Your task to perform on an android device: Search for hotels in Buenos aires Image 0: 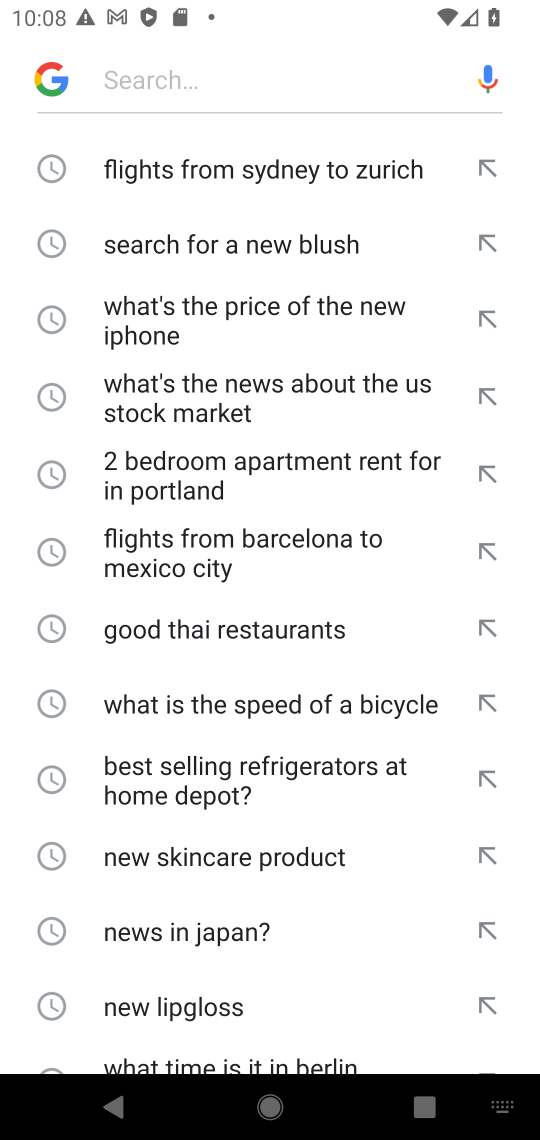
Step 0: press home button
Your task to perform on an android device: Search for hotels in Buenos aires Image 1: 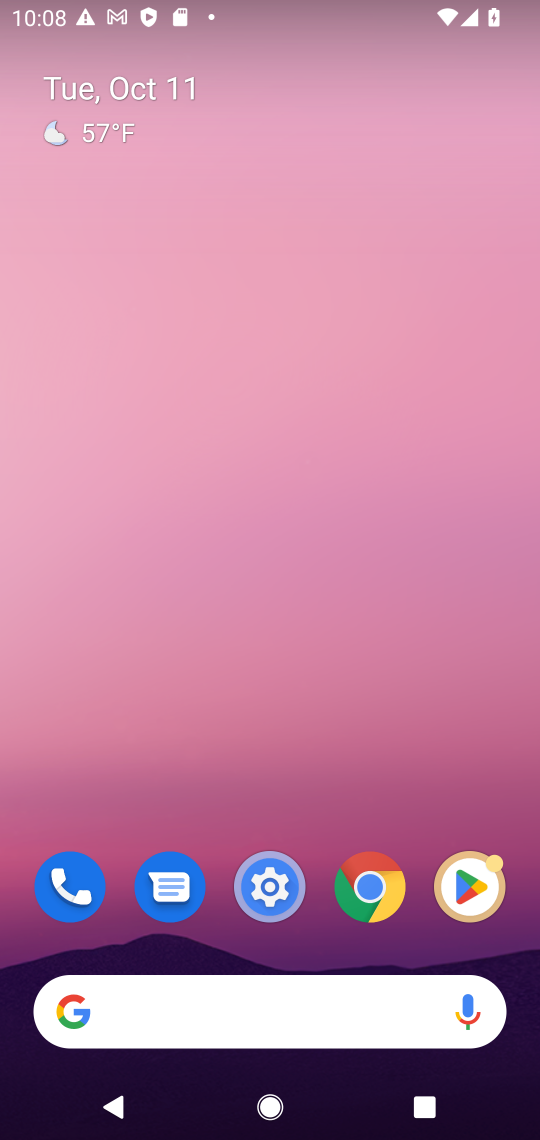
Step 1: click (147, 1012)
Your task to perform on an android device: Search for hotels in Buenos aires Image 2: 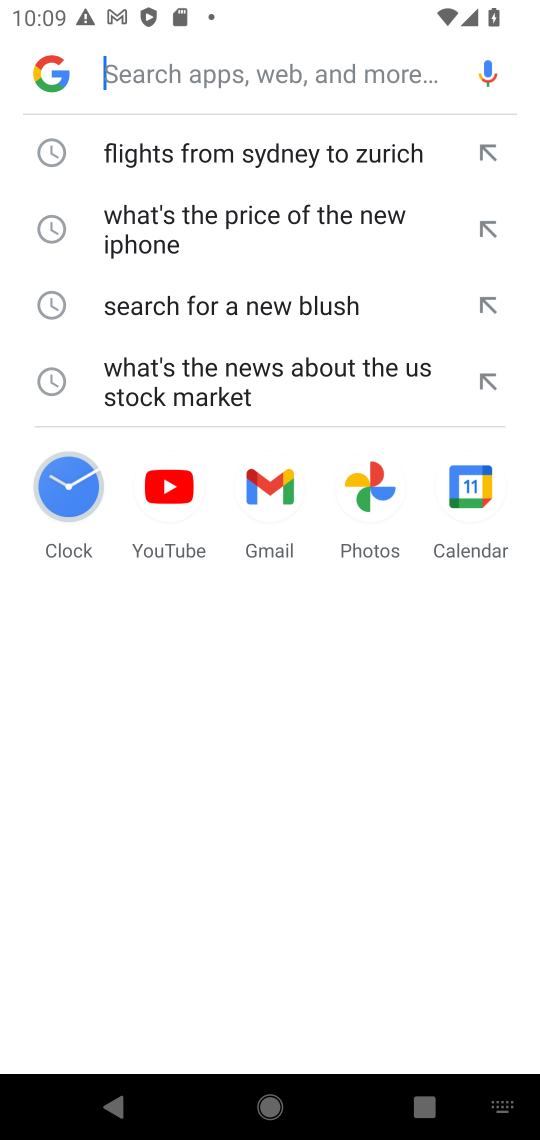
Step 2: press enter
Your task to perform on an android device: Search for hotels in Buenos aires Image 3: 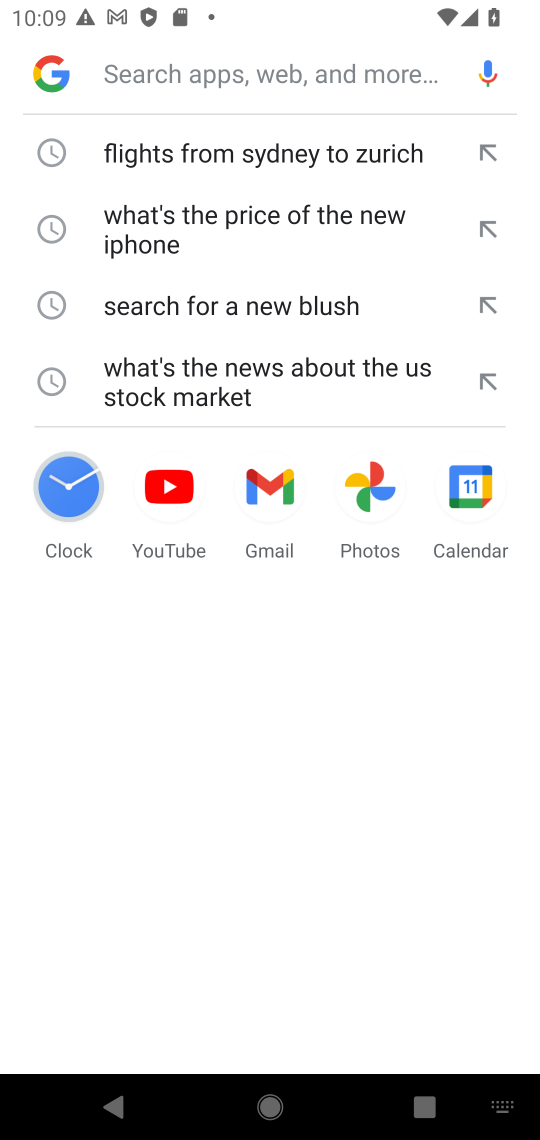
Step 3: type " hotels in Buenos aires"
Your task to perform on an android device: Search for hotels in Buenos aires Image 4: 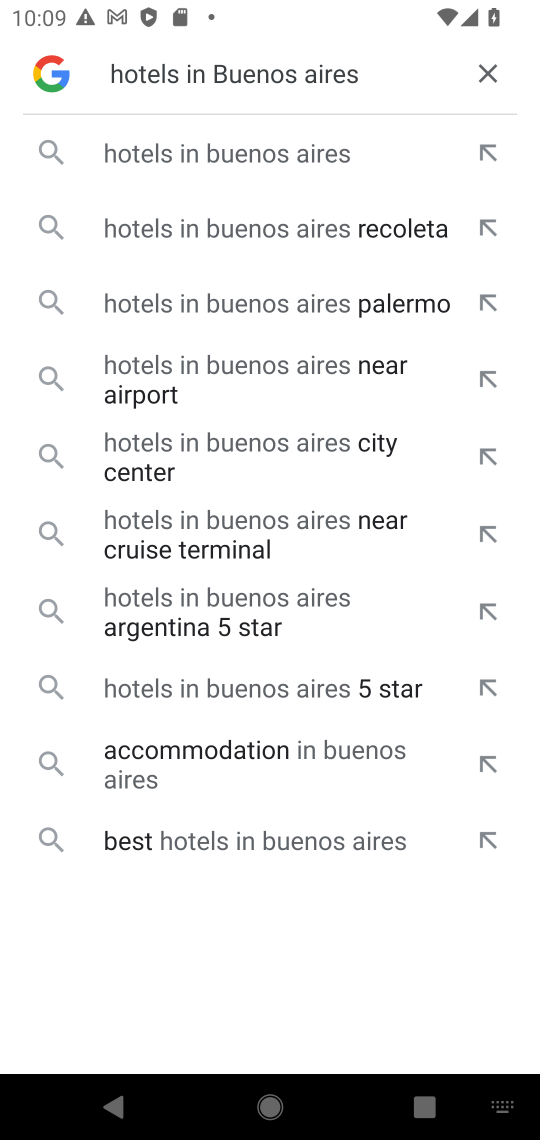
Step 4: press enter
Your task to perform on an android device: Search for hotels in Buenos aires Image 5: 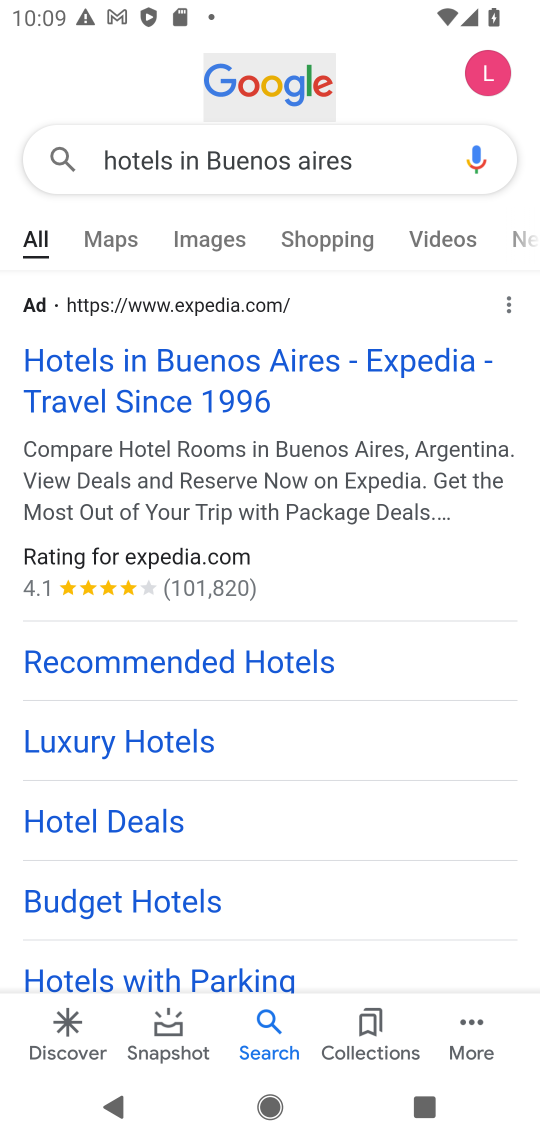
Step 5: click (200, 367)
Your task to perform on an android device: Search for hotels in Buenos aires Image 6: 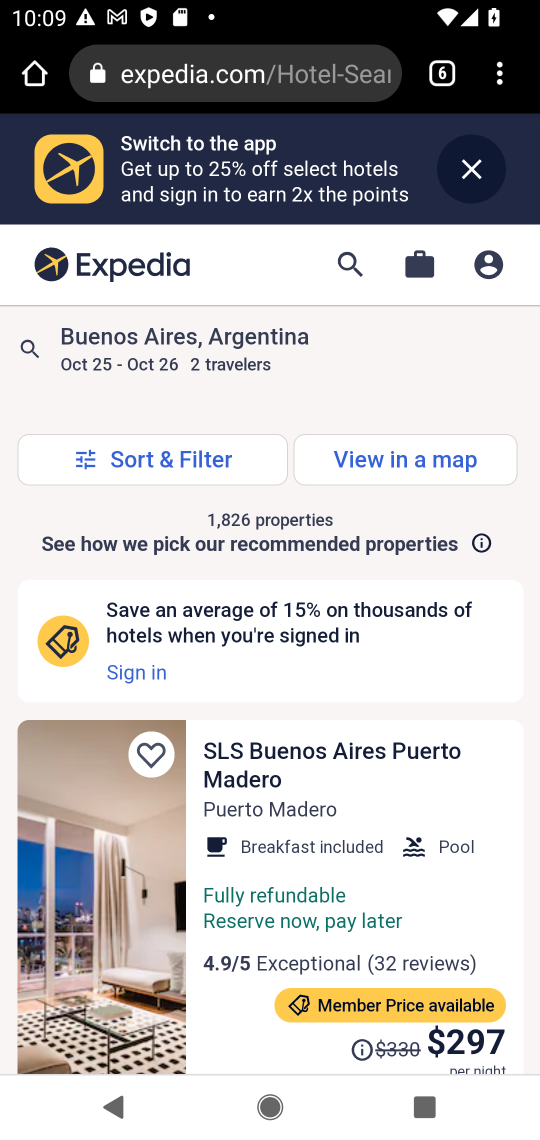
Step 6: task complete